Your task to perform on an android device: turn off location Image 0: 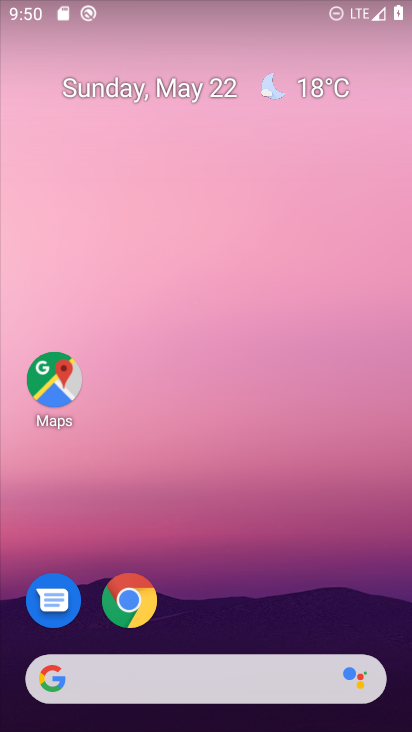
Step 0: drag from (373, 614) to (194, 23)
Your task to perform on an android device: turn off location Image 1: 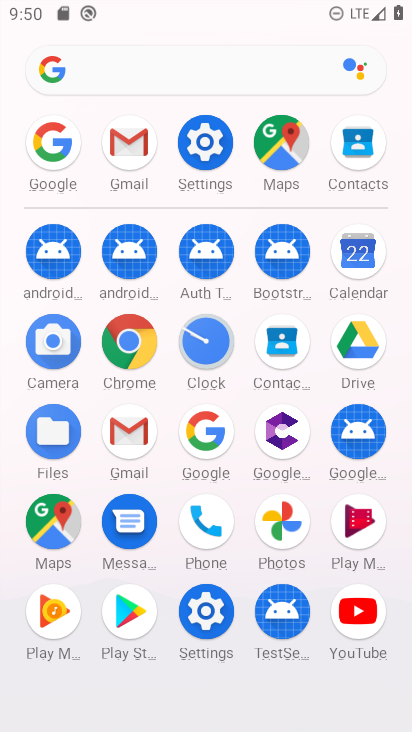
Step 1: click (211, 605)
Your task to perform on an android device: turn off location Image 2: 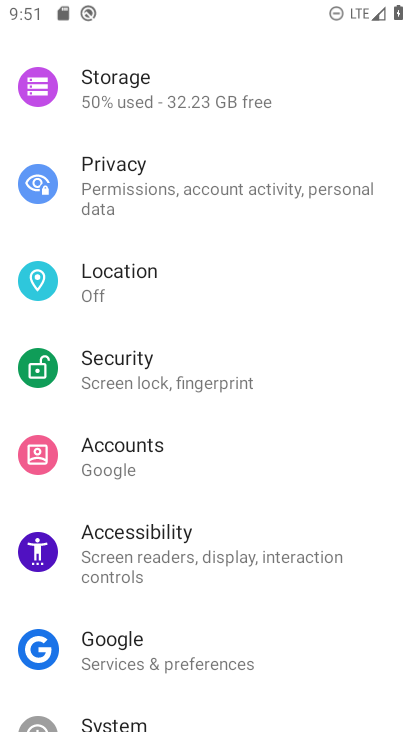
Step 2: click (172, 264)
Your task to perform on an android device: turn off location Image 3: 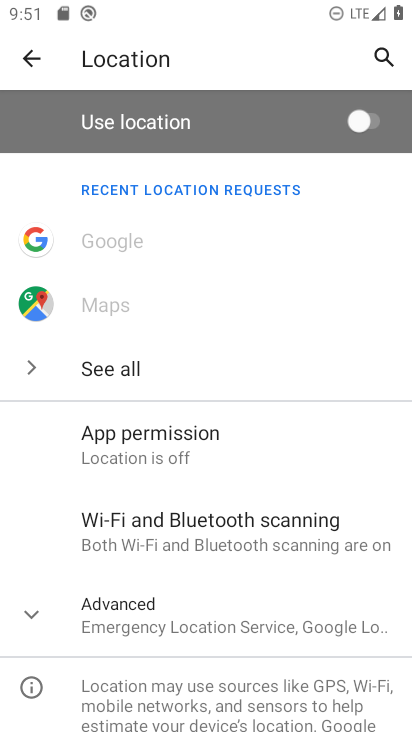
Step 3: task complete